Your task to perform on an android device: Go to battery settings Image 0: 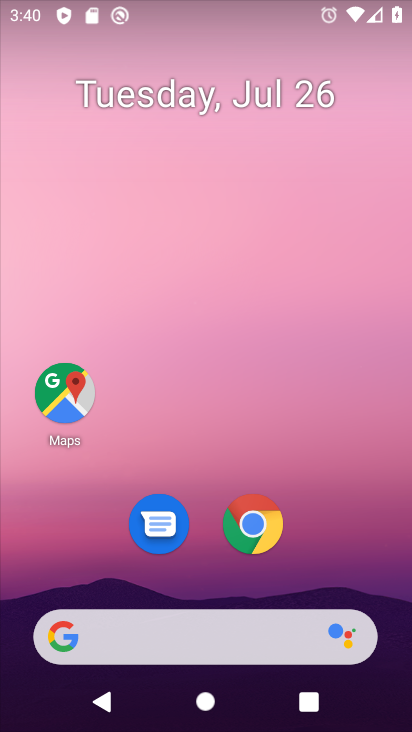
Step 0: drag from (346, 543) to (263, 0)
Your task to perform on an android device: Go to battery settings Image 1: 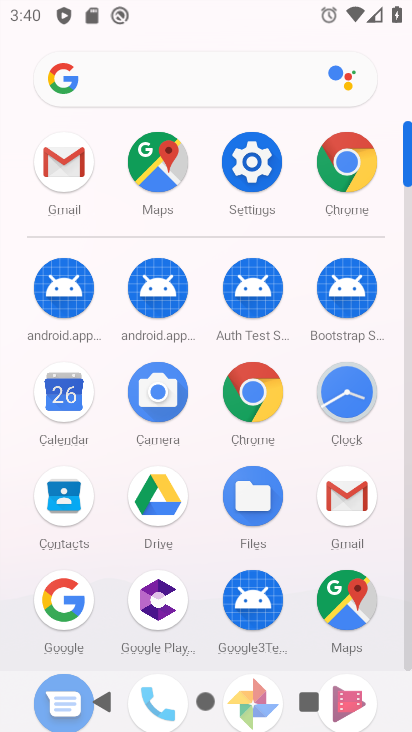
Step 1: click (253, 148)
Your task to perform on an android device: Go to battery settings Image 2: 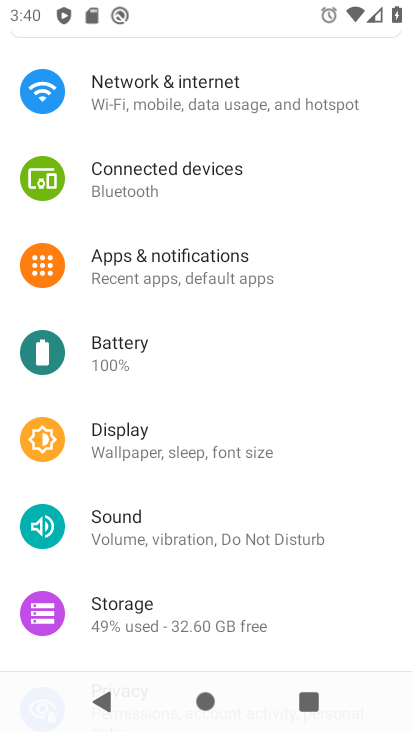
Step 2: click (158, 344)
Your task to perform on an android device: Go to battery settings Image 3: 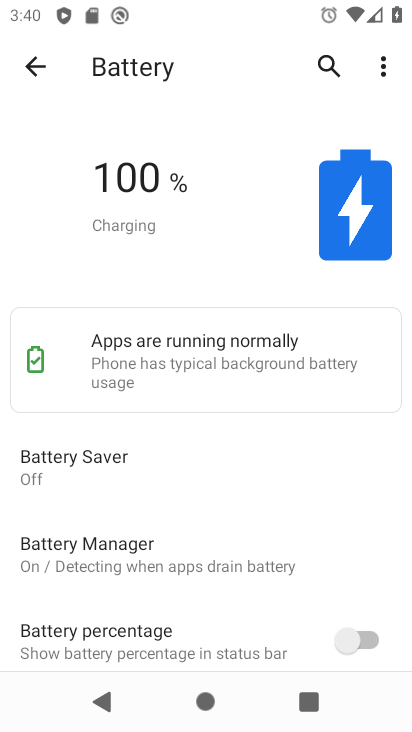
Step 3: task complete